Your task to perform on an android device: turn on location history Image 0: 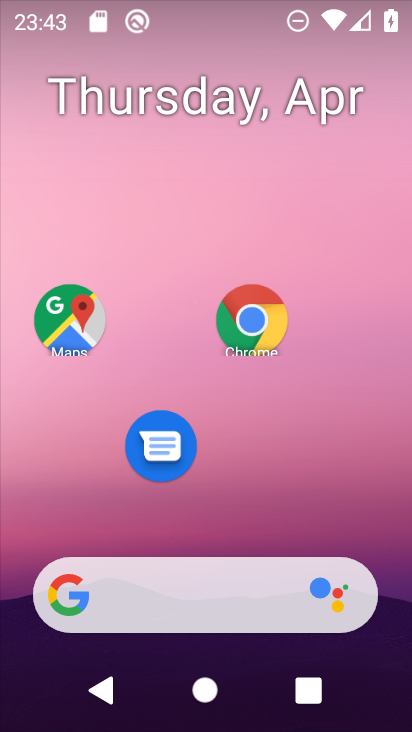
Step 0: drag from (199, 452) to (255, 131)
Your task to perform on an android device: turn on location history Image 1: 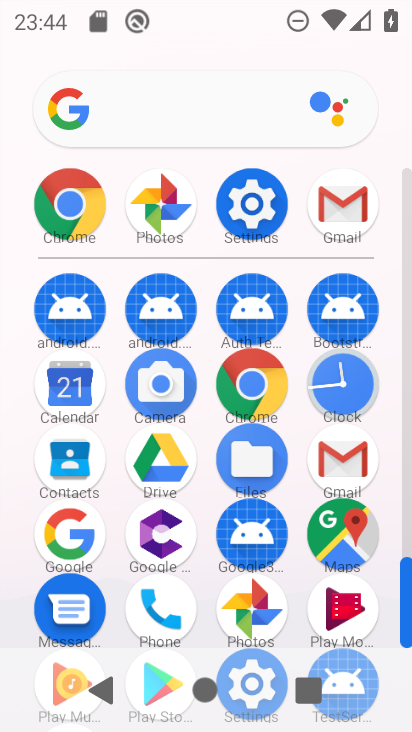
Step 1: click (235, 212)
Your task to perform on an android device: turn on location history Image 2: 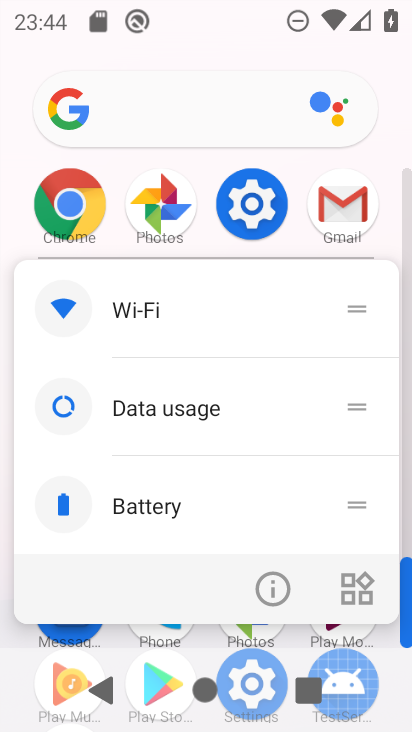
Step 2: click (290, 594)
Your task to perform on an android device: turn on location history Image 3: 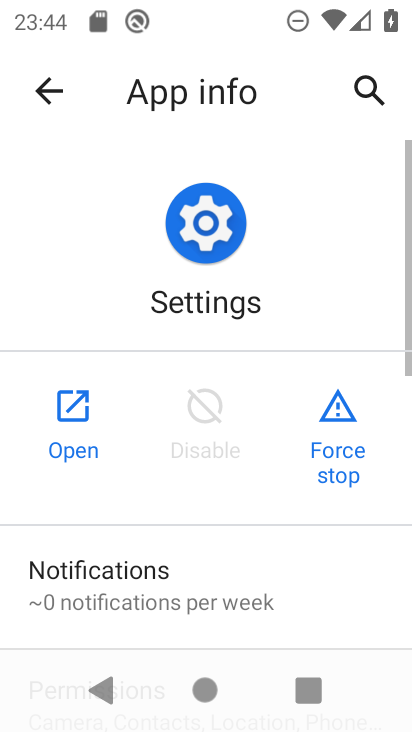
Step 3: click (85, 398)
Your task to perform on an android device: turn on location history Image 4: 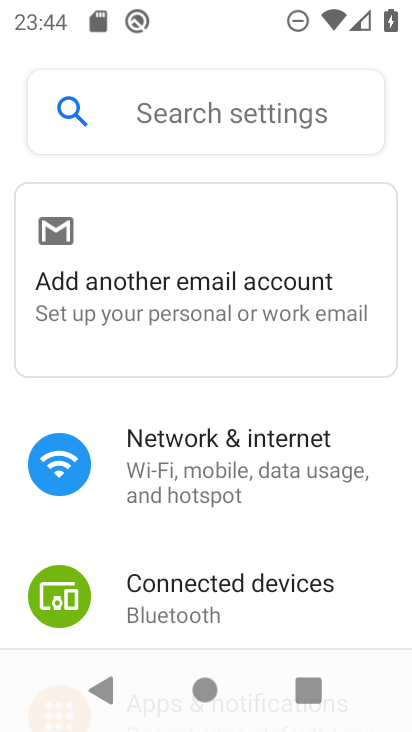
Step 4: drag from (182, 497) to (236, 227)
Your task to perform on an android device: turn on location history Image 5: 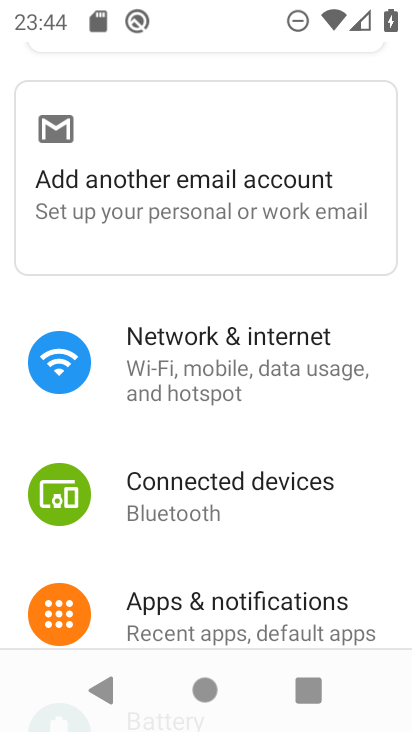
Step 5: drag from (216, 604) to (368, 212)
Your task to perform on an android device: turn on location history Image 6: 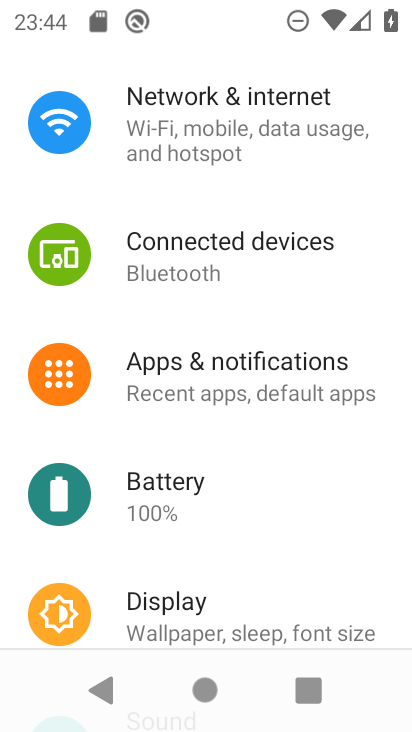
Step 6: drag from (231, 556) to (321, 122)
Your task to perform on an android device: turn on location history Image 7: 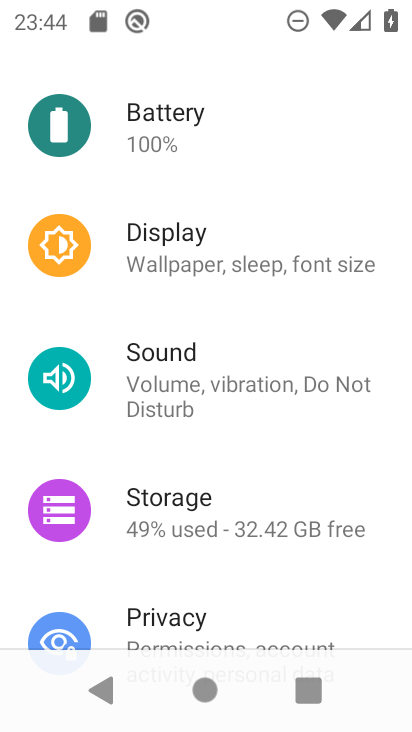
Step 7: drag from (236, 601) to (337, 128)
Your task to perform on an android device: turn on location history Image 8: 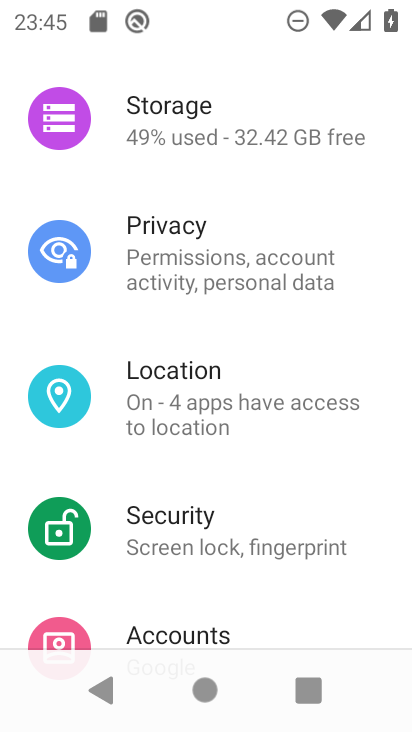
Step 8: click (250, 392)
Your task to perform on an android device: turn on location history Image 9: 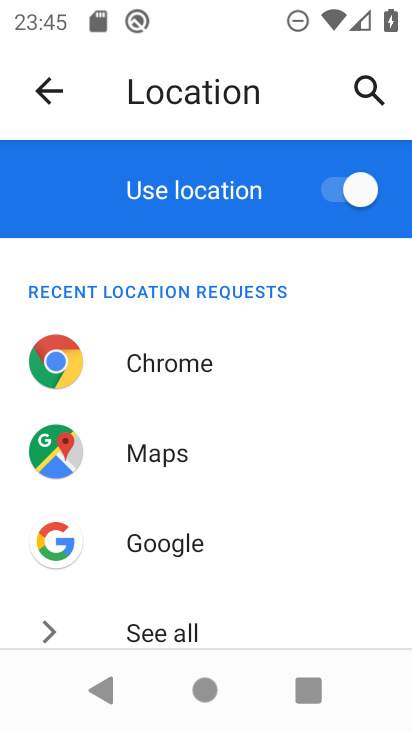
Step 9: drag from (252, 566) to (267, 238)
Your task to perform on an android device: turn on location history Image 10: 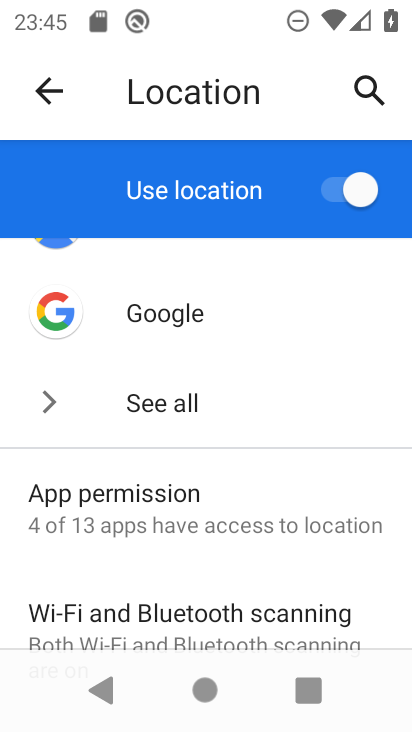
Step 10: drag from (181, 529) to (285, 153)
Your task to perform on an android device: turn on location history Image 11: 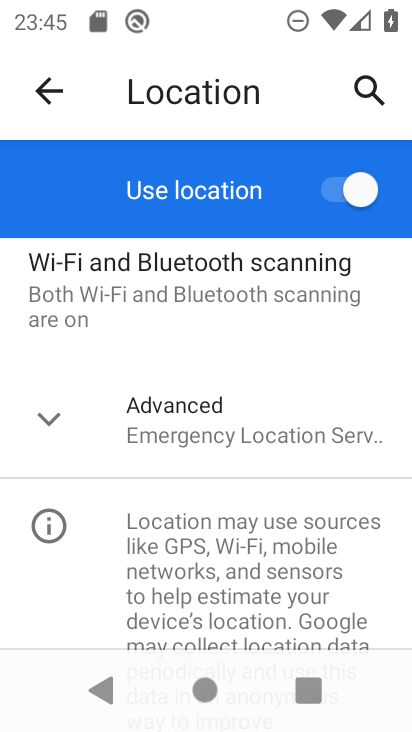
Step 11: click (127, 436)
Your task to perform on an android device: turn on location history Image 12: 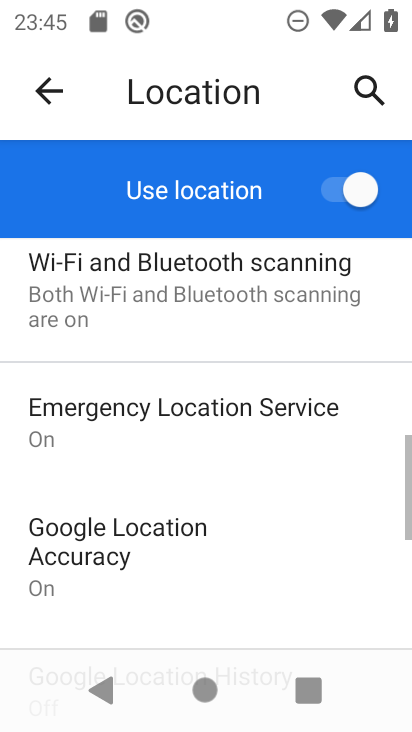
Step 12: drag from (222, 576) to (277, 259)
Your task to perform on an android device: turn on location history Image 13: 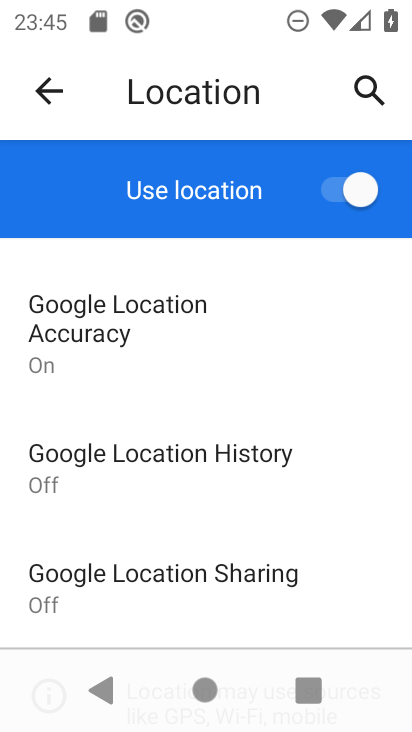
Step 13: click (194, 475)
Your task to perform on an android device: turn on location history Image 14: 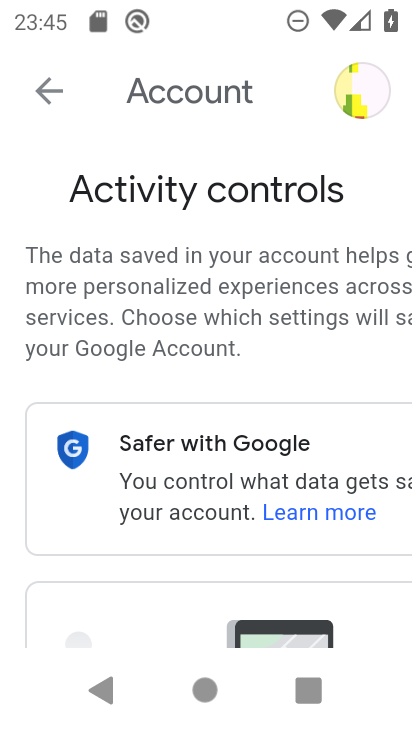
Step 14: drag from (99, 523) to (152, 183)
Your task to perform on an android device: turn on location history Image 15: 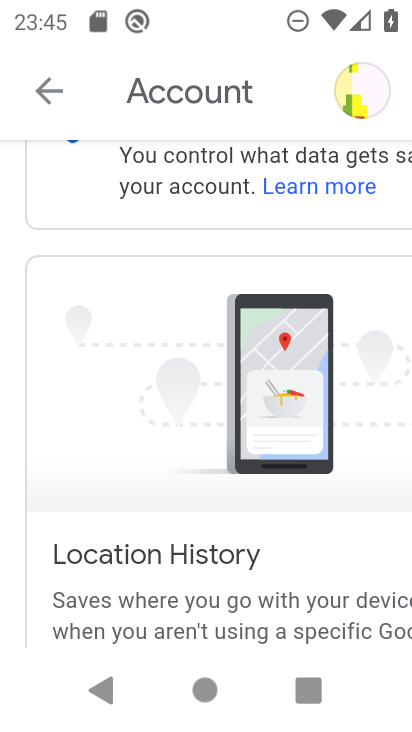
Step 15: drag from (247, 501) to (241, 436)
Your task to perform on an android device: turn on location history Image 16: 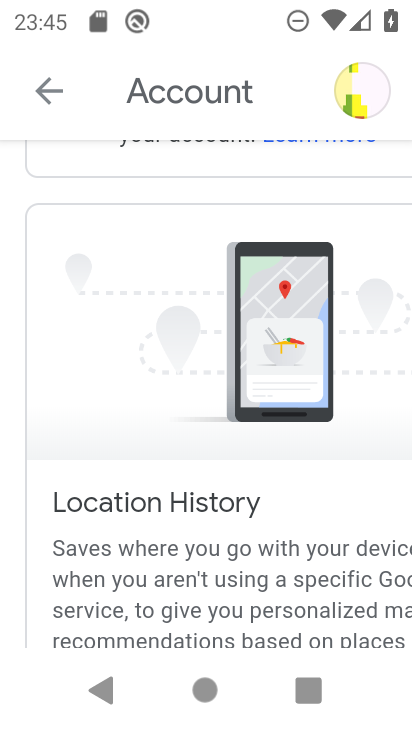
Step 16: drag from (280, 579) to (196, 275)
Your task to perform on an android device: turn on location history Image 17: 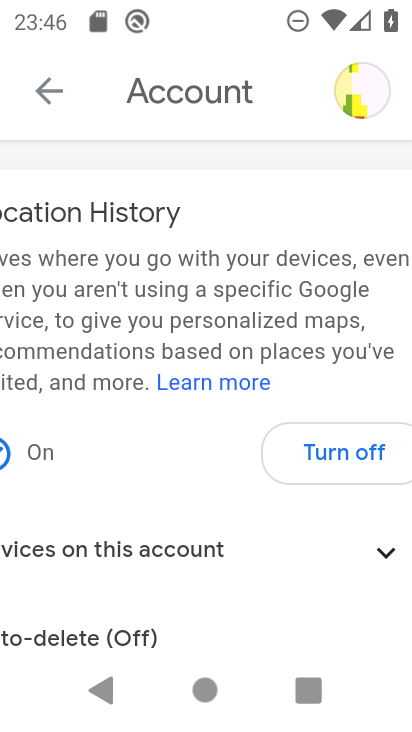
Step 17: click (348, 434)
Your task to perform on an android device: turn on location history Image 18: 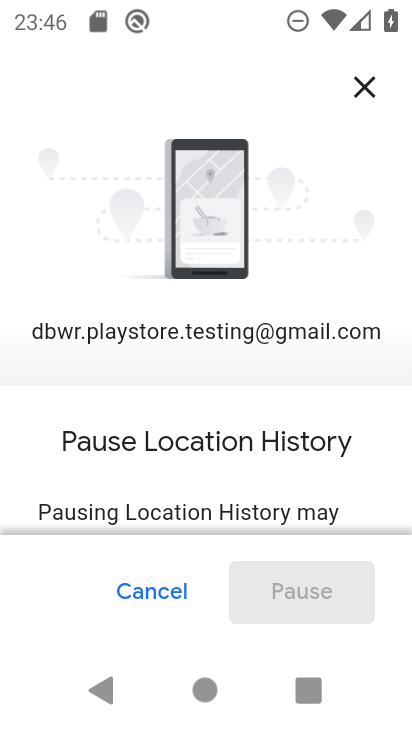
Step 18: drag from (203, 506) to (357, 20)
Your task to perform on an android device: turn on location history Image 19: 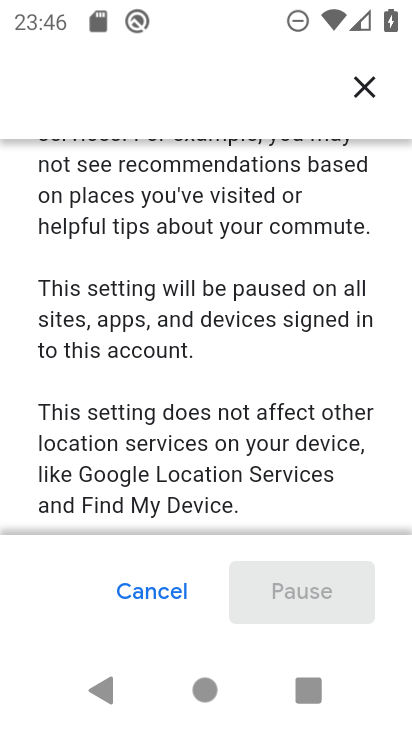
Step 19: drag from (219, 487) to (286, 239)
Your task to perform on an android device: turn on location history Image 20: 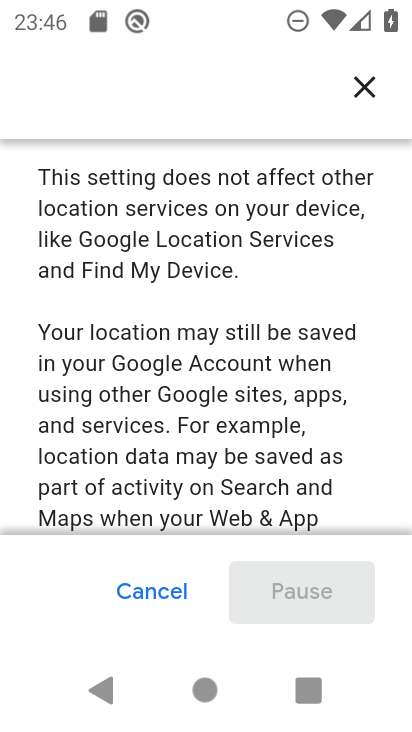
Step 20: drag from (192, 470) to (225, 300)
Your task to perform on an android device: turn on location history Image 21: 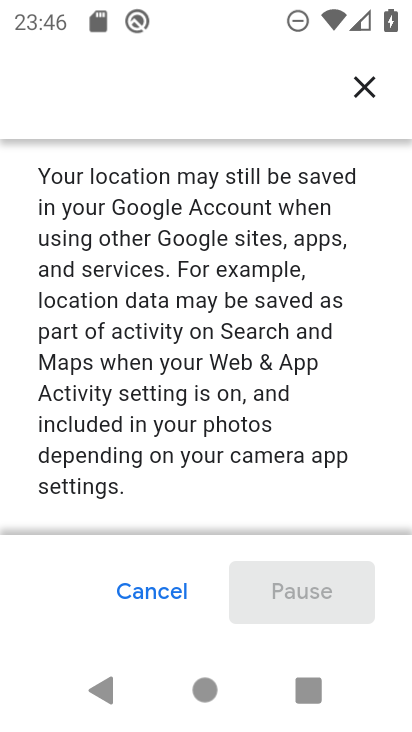
Step 21: drag from (241, 355) to (252, 97)
Your task to perform on an android device: turn on location history Image 22: 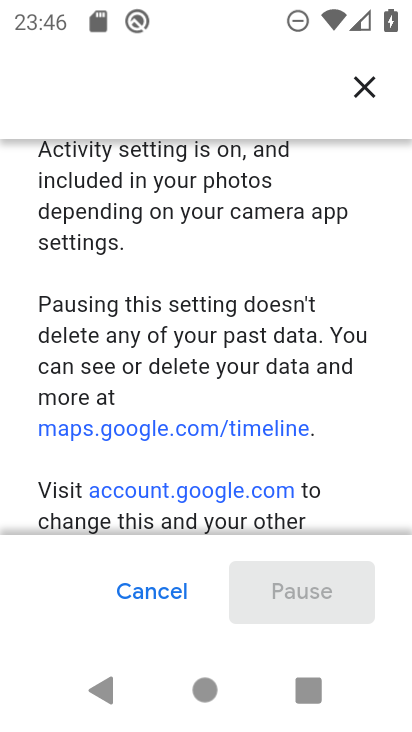
Step 22: drag from (182, 499) to (241, 184)
Your task to perform on an android device: turn on location history Image 23: 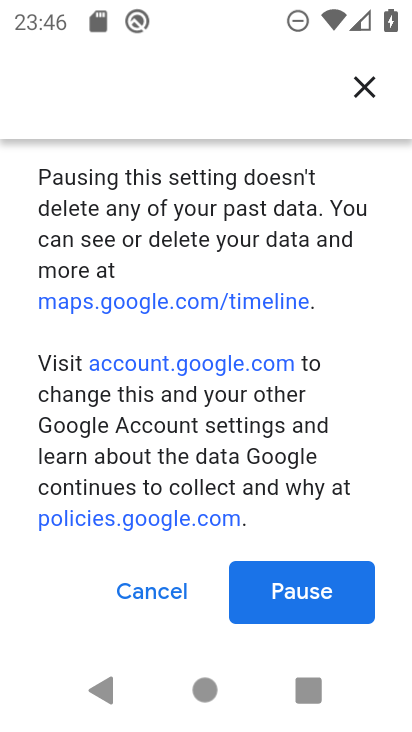
Step 23: drag from (202, 454) to (247, 277)
Your task to perform on an android device: turn on location history Image 24: 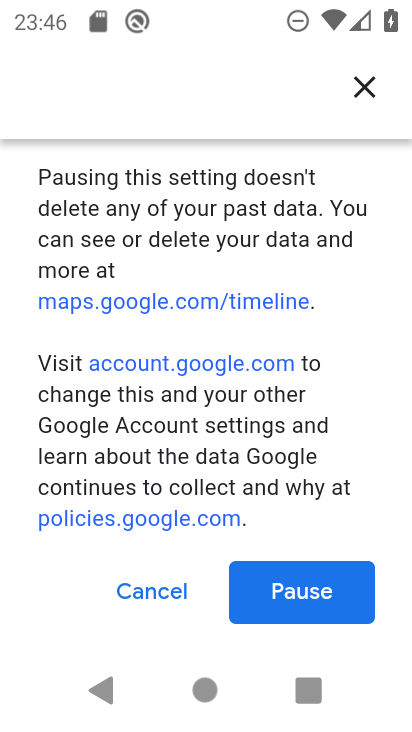
Step 24: drag from (217, 406) to (219, 299)
Your task to perform on an android device: turn on location history Image 25: 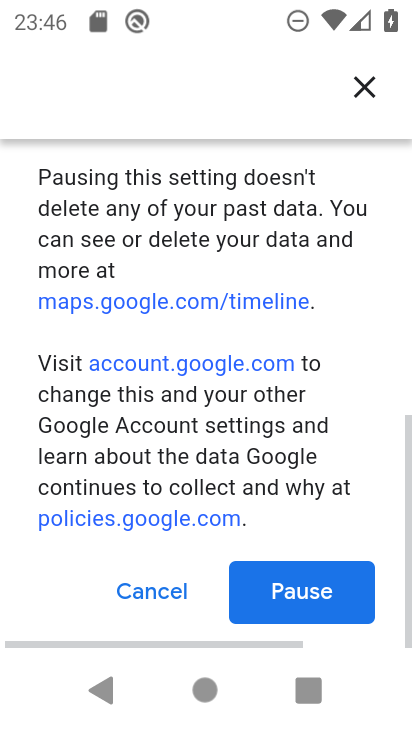
Step 25: drag from (200, 475) to (246, 294)
Your task to perform on an android device: turn on location history Image 26: 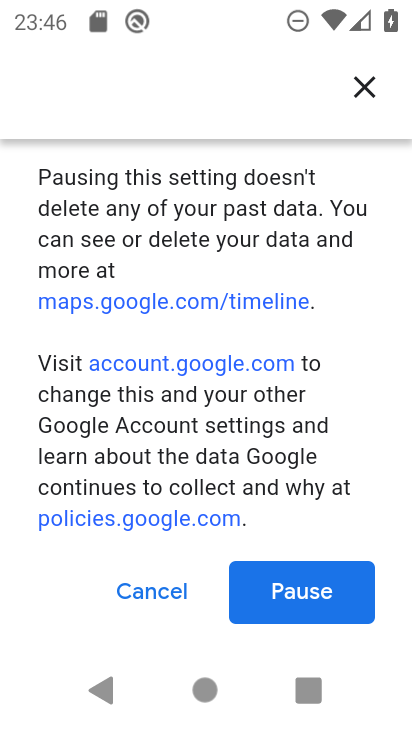
Step 26: click (289, 603)
Your task to perform on an android device: turn on location history Image 27: 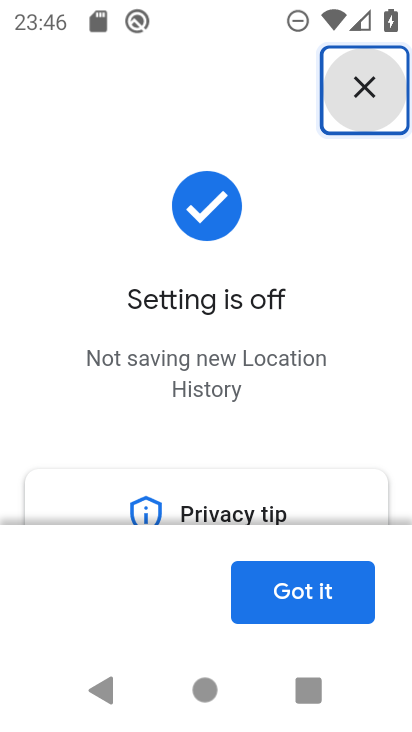
Step 27: drag from (263, 472) to (284, 4)
Your task to perform on an android device: turn on location history Image 28: 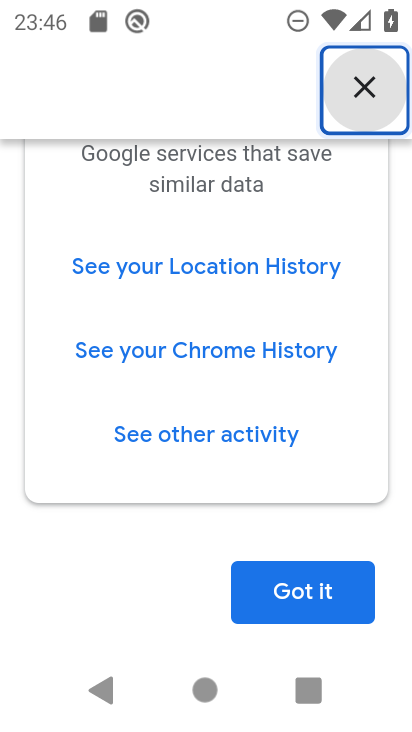
Step 28: drag from (189, 452) to (287, 72)
Your task to perform on an android device: turn on location history Image 29: 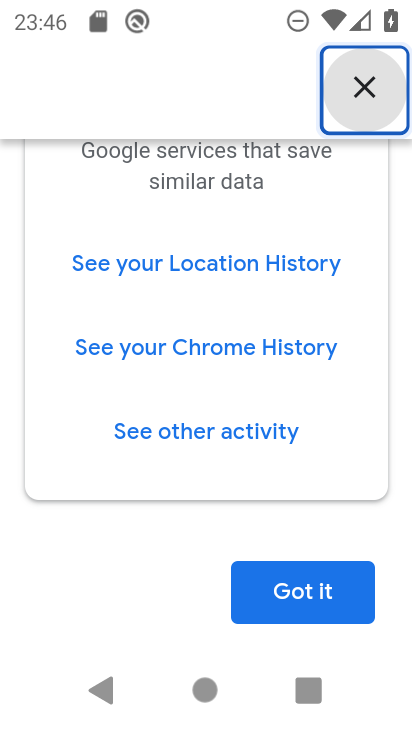
Step 29: click (283, 586)
Your task to perform on an android device: turn on location history Image 30: 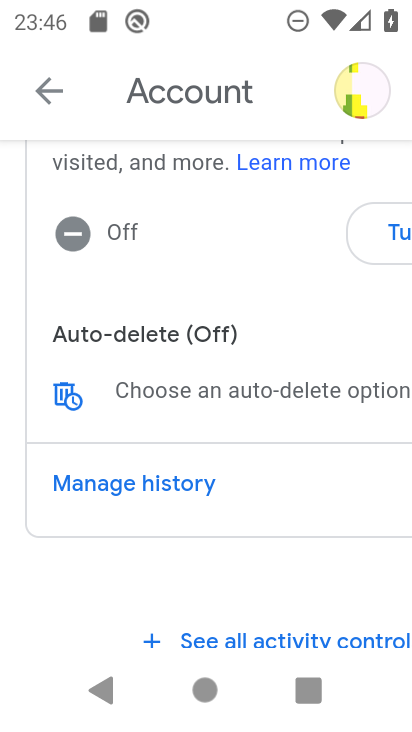
Step 30: task complete